Your task to perform on an android device: turn off translation in the chrome app Image 0: 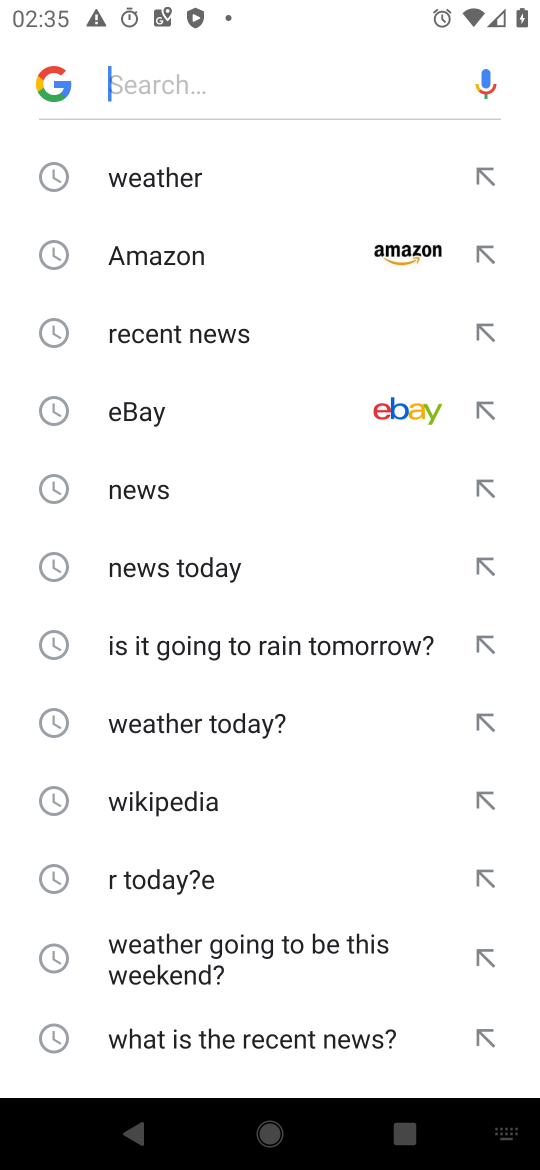
Step 0: press home button
Your task to perform on an android device: turn off translation in the chrome app Image 1: 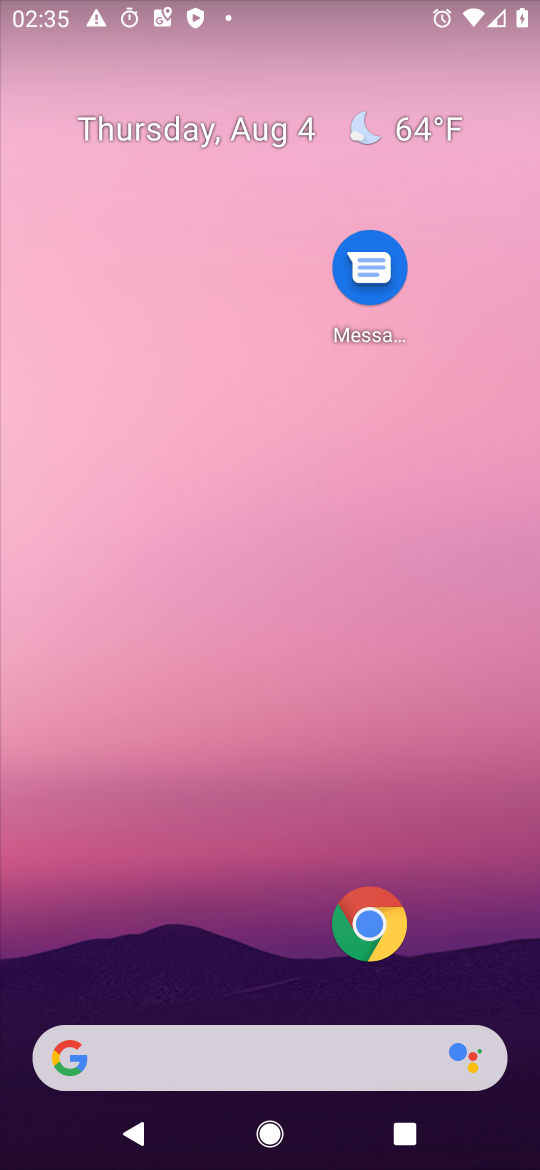
Step 1: click (383, 937)
Your task to perform on an android device: turn off translation in the chrome app Image 2: 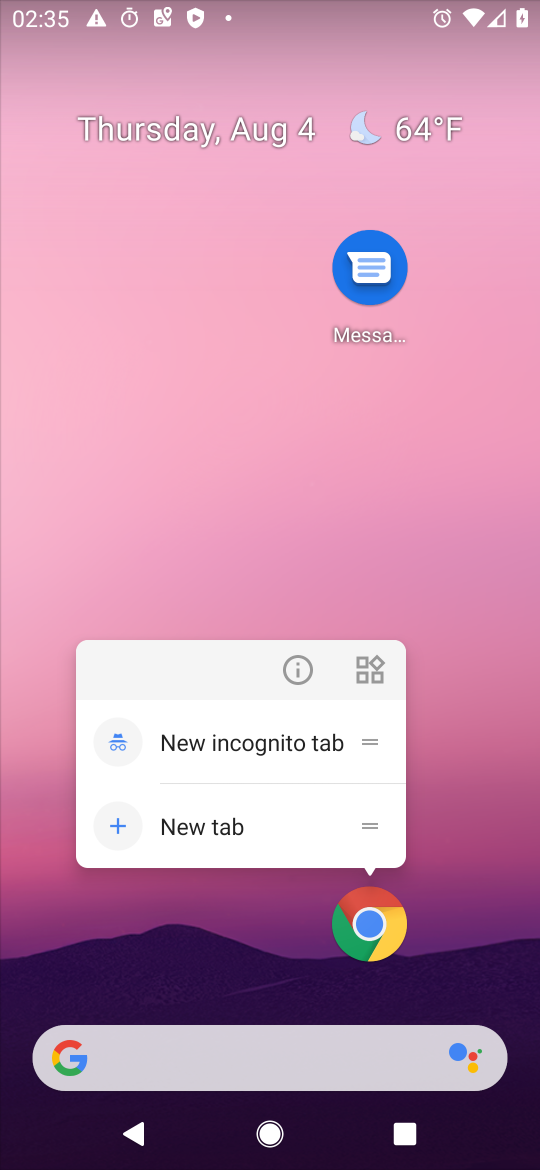
Step 2: click (360, 910)
Your task to perform on an android device: turn off translation in the chrome app Image 3: 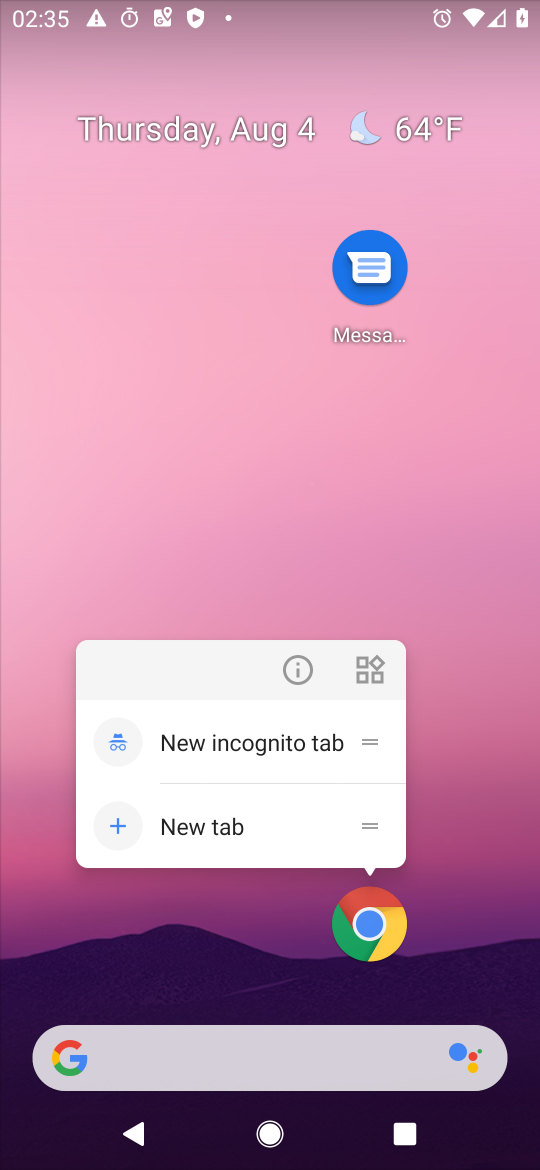
Step 3: click (338, 935)
Your task to perform on an android device: turn off translation in the chrome app Image 4: 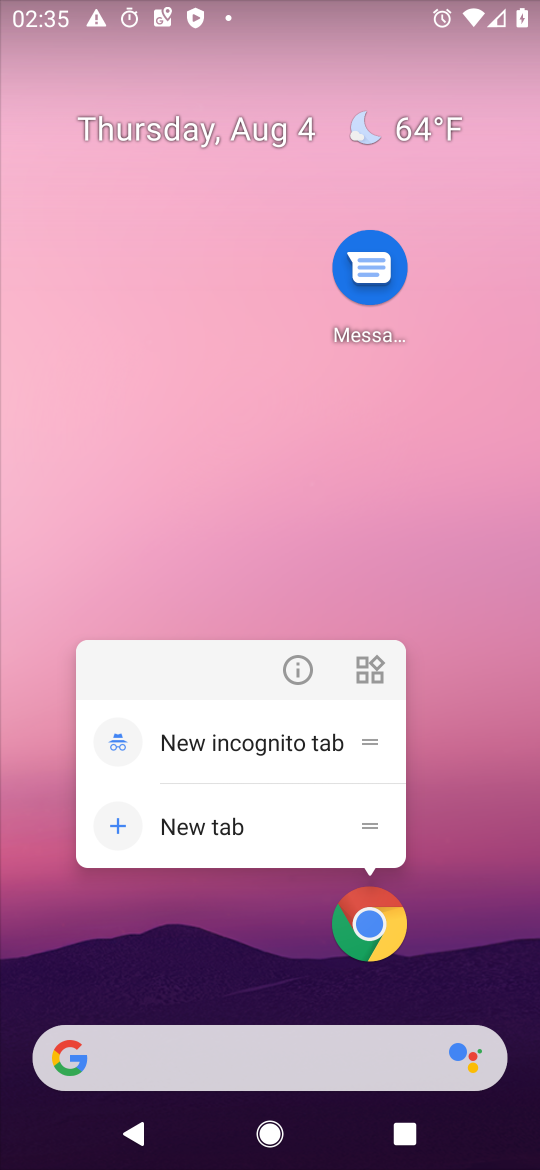
Step 4: task complete